Your task to perform on an android device: What is the recent news? Image 0: 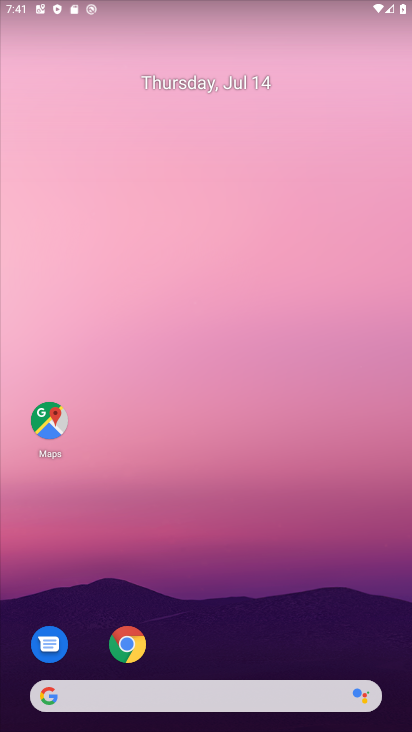
Step 0: click (171, 695)
Your task to perform on an android device: What is the recent news? Image 1: 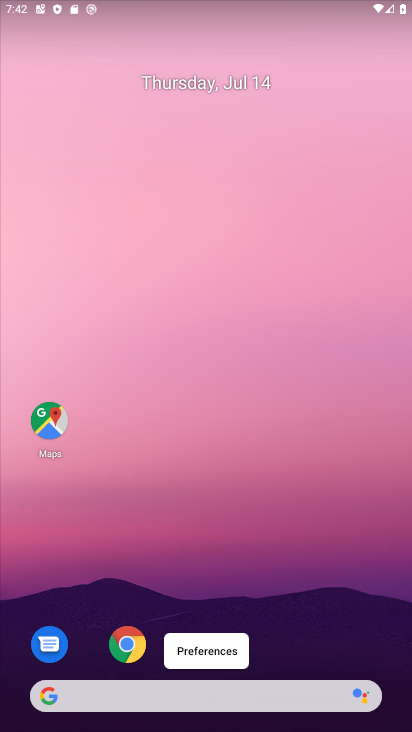
Step 1: click (151, 694)
Your task to perform on an android device: What is the recent news? Image 2: 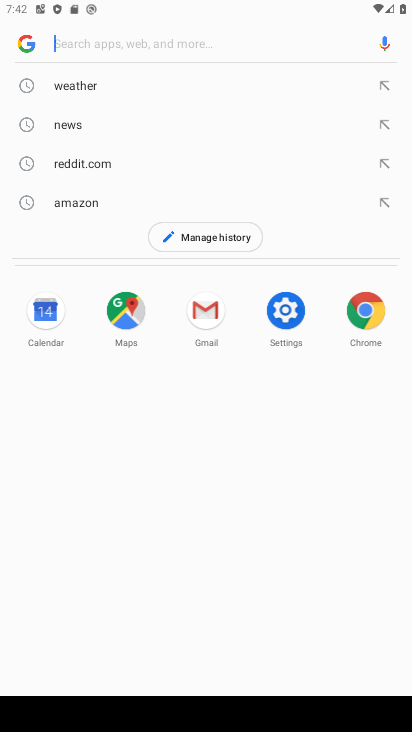
Step 2: click (72, 124)
Your task to perform on an android device: What is the recent news? Image 3: 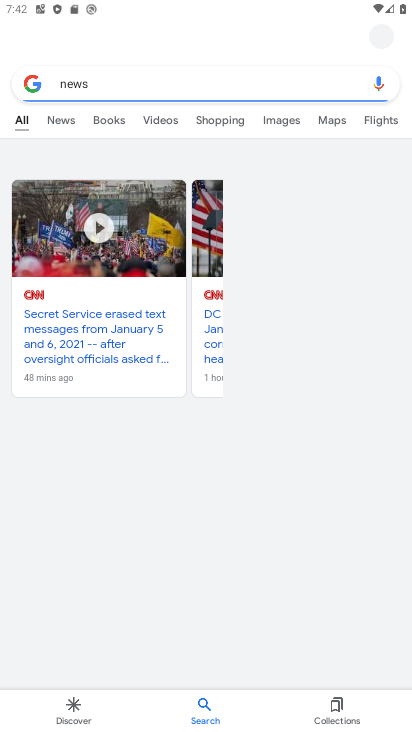
Step 3: click (47, 110)
Your task to perform on an android device: What is the recent news? Image 4: 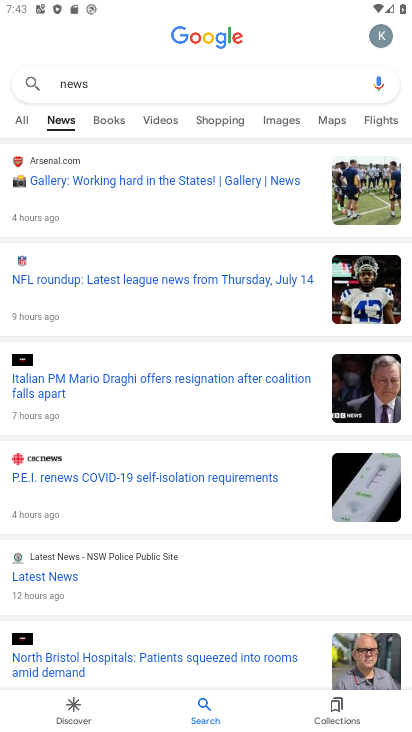
Step 4: task complete